Your task to perform on an android device: toggle pop-ups in chrome Image 0: 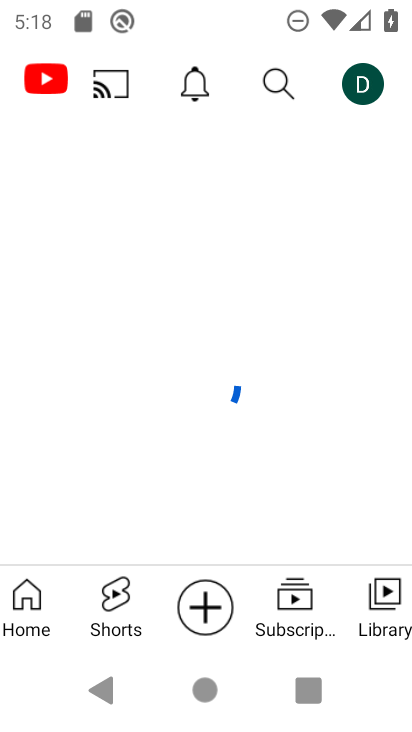
Step 0: click (253, 450)
Your task to perform on an android device: toggle pop-ups in chrome Image 1: 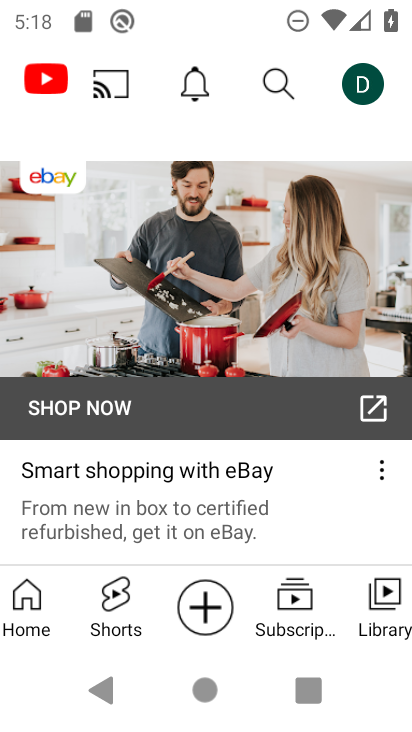
Step 1: press home button
Your task to perform on an android device: toggle pop-ups in chrome Image 2: 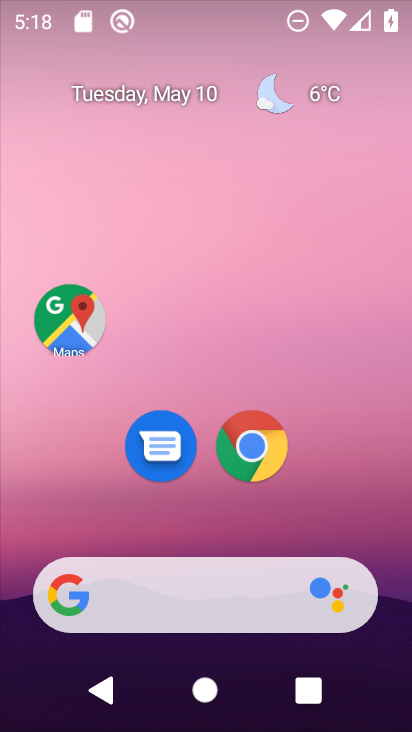
Step 2: click (254, 427)
Your task to perform on an android device: toggle pop-ups in chrome Image 3: 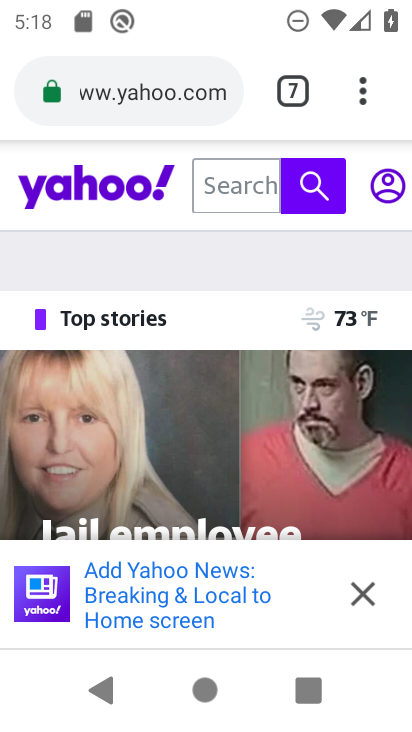
Step 3: click (365, 93)
Your task to perform on an android device: toggle pop-ups in chrome Image 4: 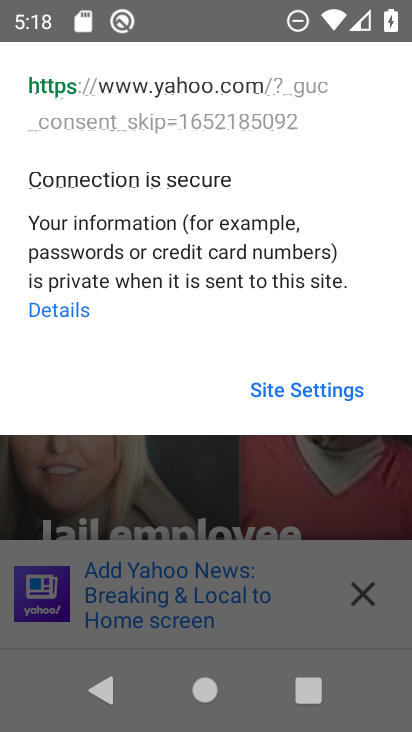
Step 4: click (260, 499)
Your task to perform on an android device: toggle pop-ups in chrome Image 5: 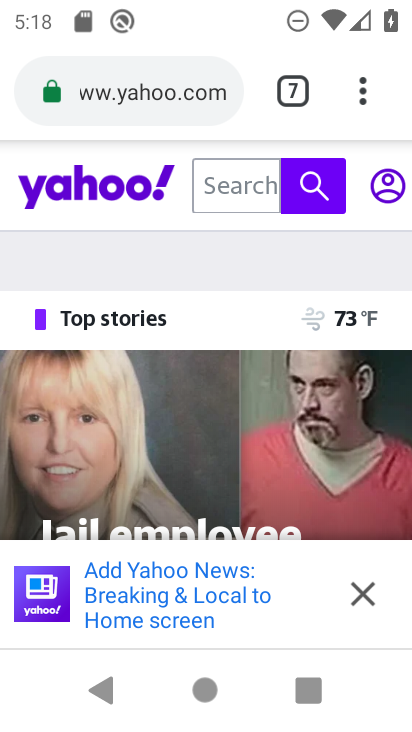
Step 5: click (362, 75)
Your task to perform on an android device: toggle pop-ups in chrome Image 6: 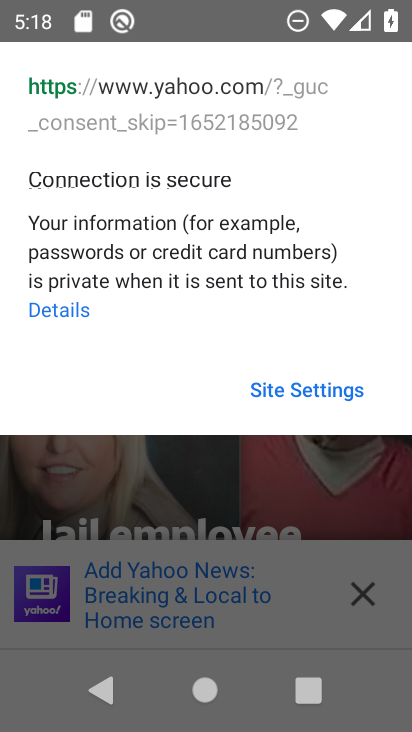
Step 6: click (219, 508)
Your task to perform on an android device: toggle pop-ups in chrome Image 7: 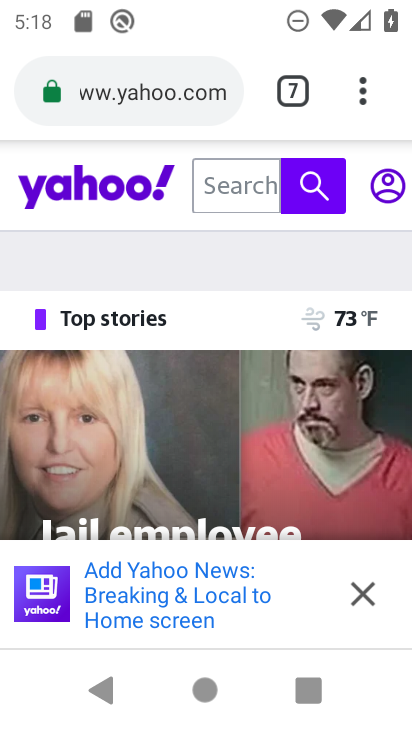
Step 7: click (359, 84)
Your task to perform on an android device: toggle pop-ups in chrome Image 8: 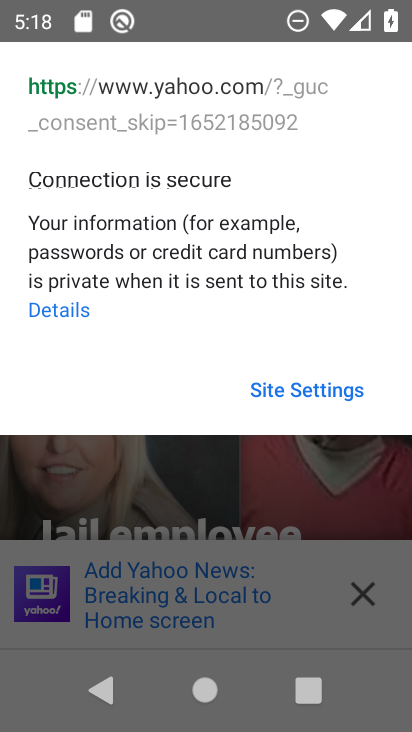
Step 8: click (240, 502)
Your task to perform on an android device: toggle pop-ups in chrome Image 9: 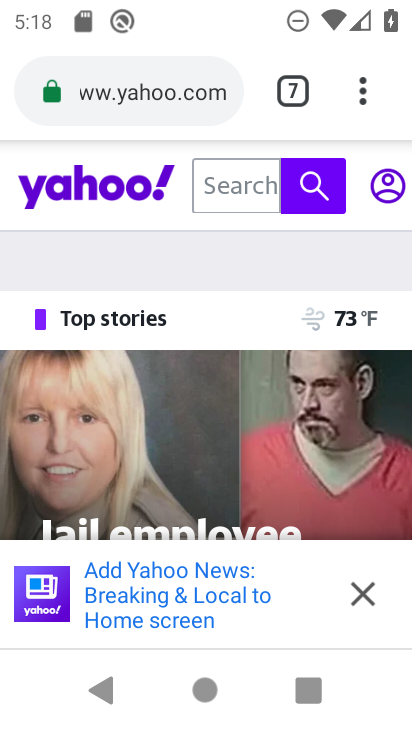
Step 9: click (362, 95)
Your task to perform on an android device: toggle pop-ups in chrome Image 10: 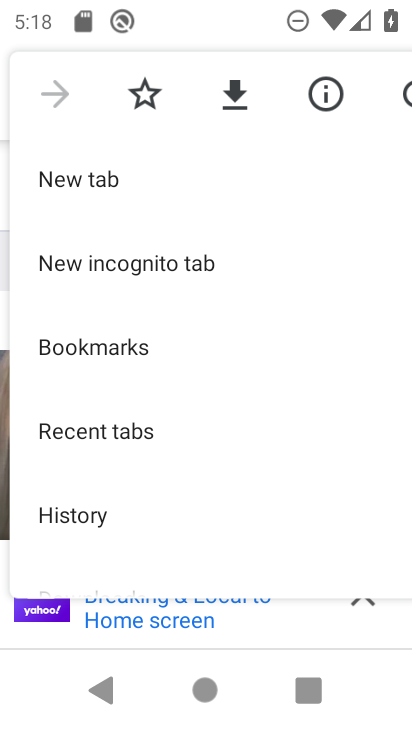
Step 10: drag from (197, 515) to (169, 113)
Your task to perform on an android device: toggle pop-ups in chrome Image 11: 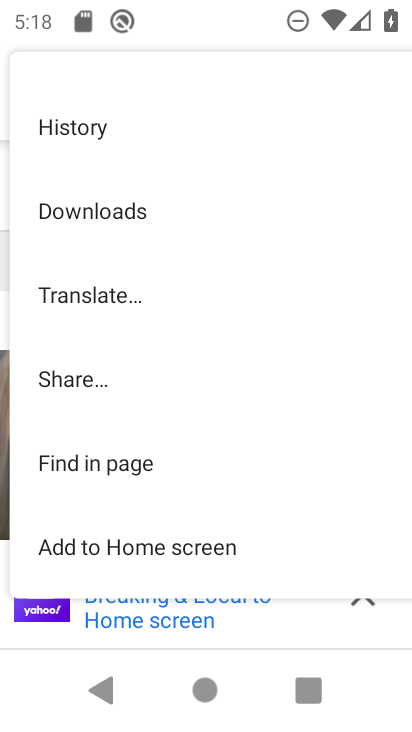
Step 11: drag from (152, 510) to (138, 169)
Your task to perform on an android device: toggle pop-ups in chrome Image 12: 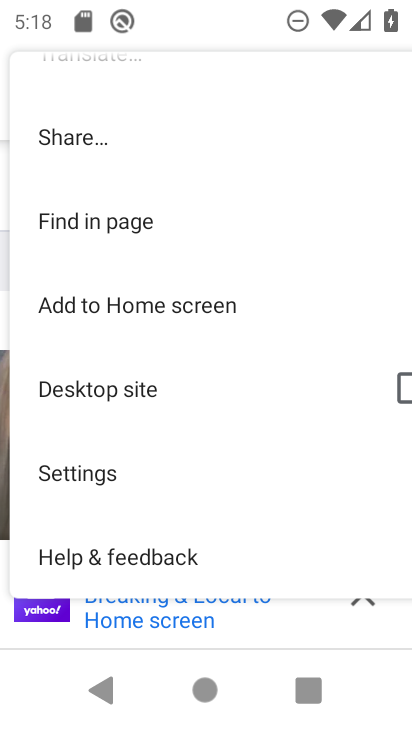
Step 12: click (102, 469)
Your task to perform on an android device: toggle pop-ups in chrome Image 13: 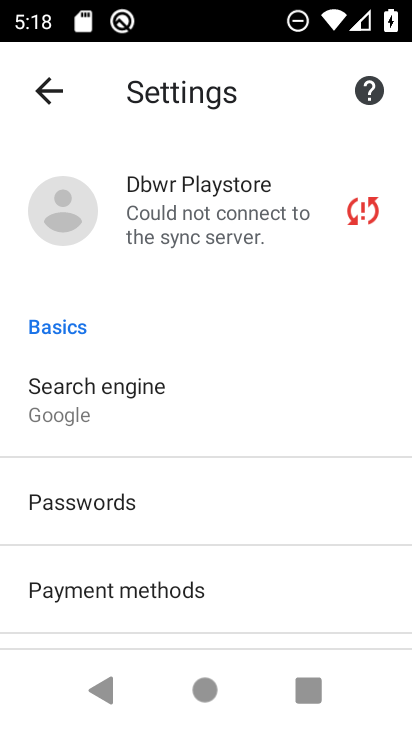
Step 13: drag from (127, 561) to (140, 167)
Your task to perform on an android device: toggle pop-ups in chrome Image 14: 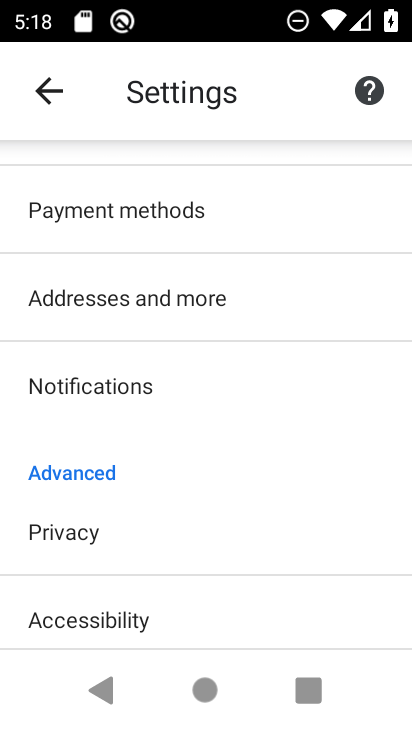
Step 14: drag from (112, 531) to (153, 183)
Your task to perform on an android device: toggle pop-ups in chrome Image 15: 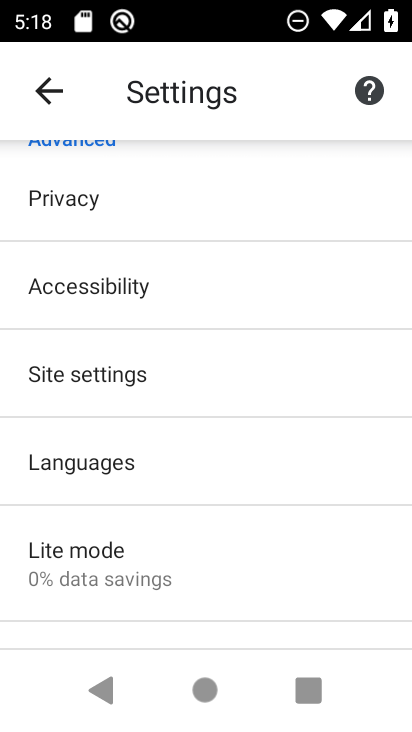
Step 15: click (113, 364)
Your task to perform on an android device: toggle pop-ups in chrome Image 16: 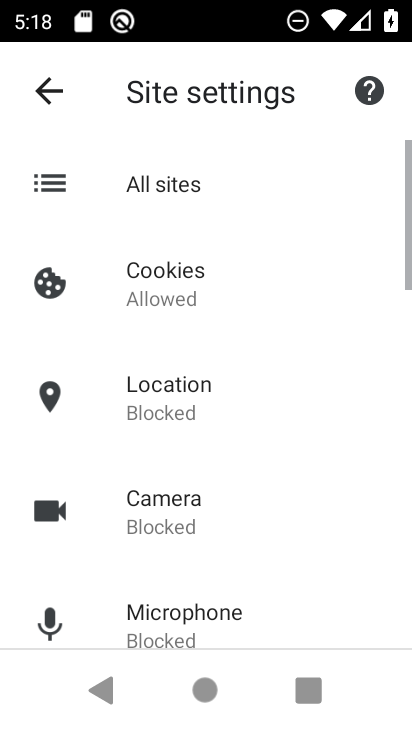
Step 16: drag from (221, 518) to (209, 137)
Your task to perform on an android device: toggle pop-ups in chrome Image 17: 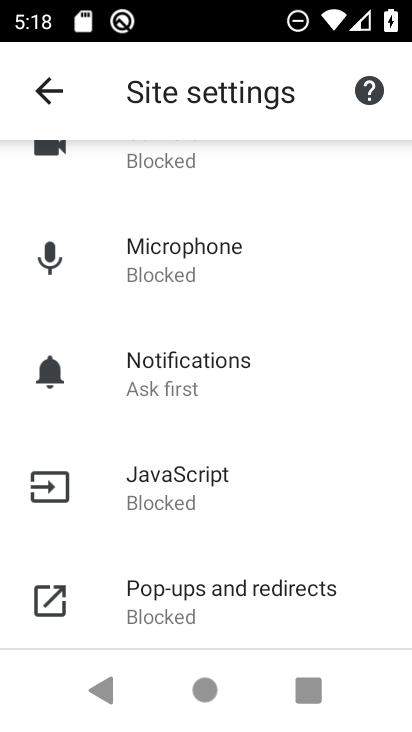
Step 17: click (207, 580)
Your task to perform on an android device: toggle pop-ups in chrome Image 18: 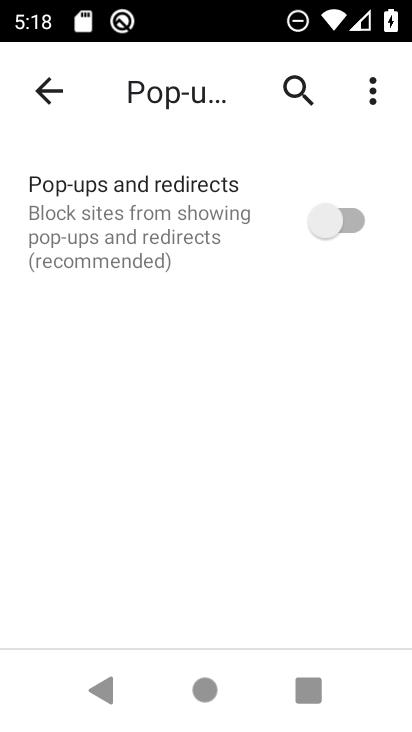
Step 18: click (328, 216)
Your task to perform on an android device: toggle pop-ups in chrome Image 19: 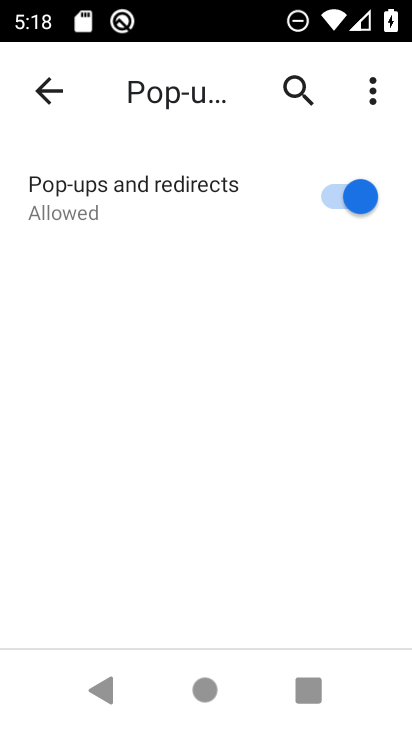
Step 19: task complete